Your task to perform on an android device: Open Youtube and go to the subscriptions tab Image 0: 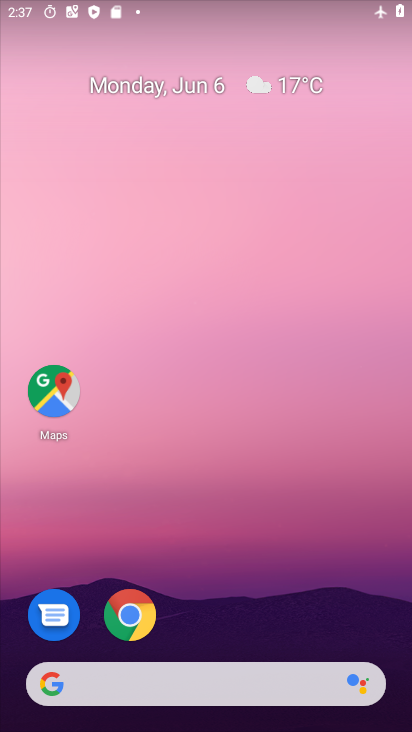
Step 0: click (222, 179)
Your task to perform on an android device: Open Youtube and go to the subscriptions tab Image 1: 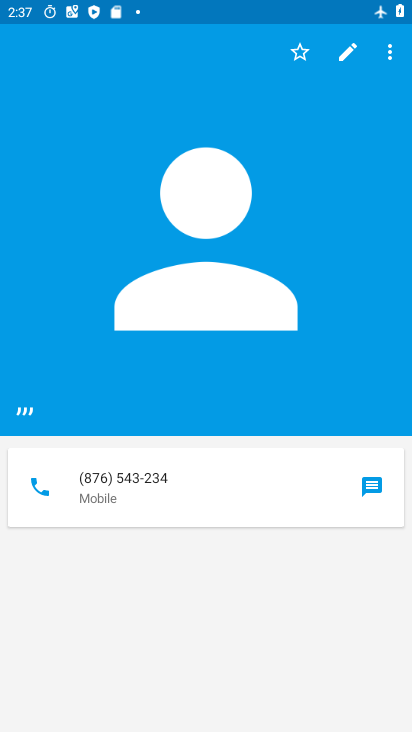
Step 1: press home button
Your task to perform on an android device: Open Youtube and go to the subscriptions tab Image 2: 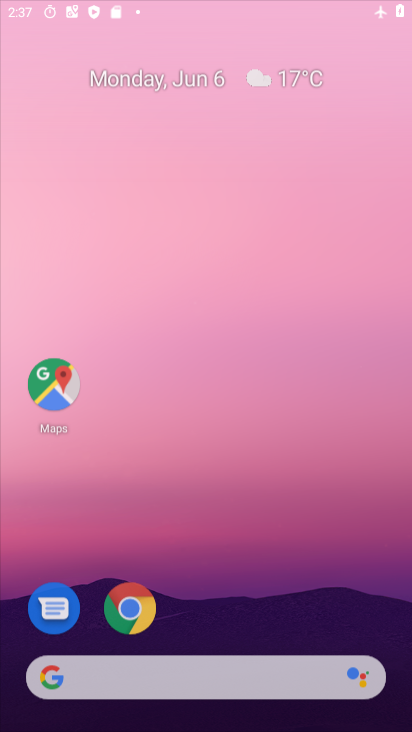
Step 2: drag from (180, 613) to (230, 126)
Your task to perform on an android device: Open Youtube and go to the subscriptions tab Image 3: 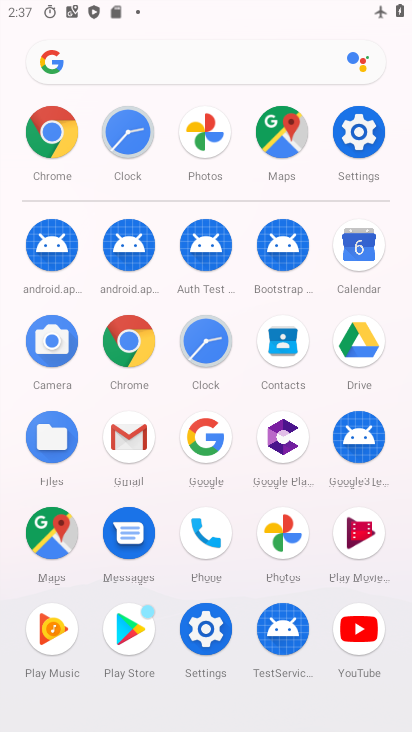
Step 3: click (356, 618)
Your task to perform on an android device: Open Youtube and go to the subscriptions tab Image 4: 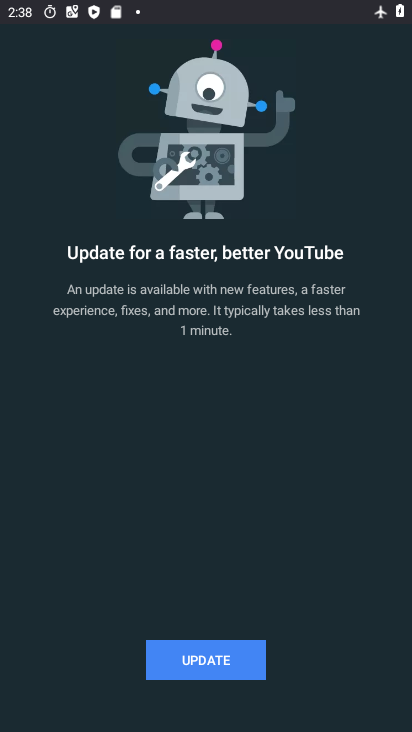
Step 4: click (227, 664)
Your task to perform on an android device: Open Youtube and go to the subscriptions tab Image 5: 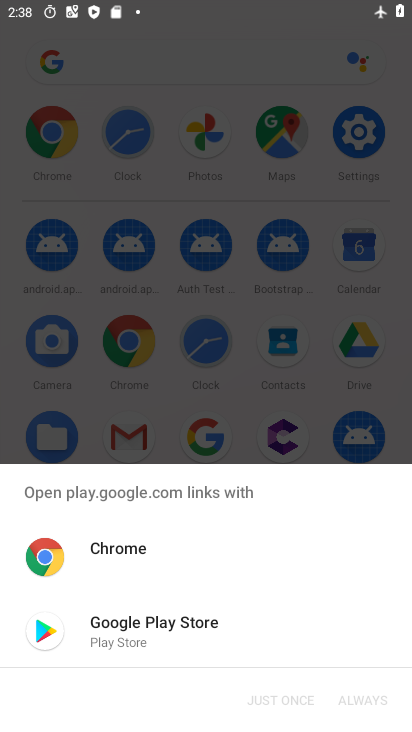
Step 5: click (116, 626)
Your task to perform on an android device: Open Youtube and go to the subscriptions tab Image 6: 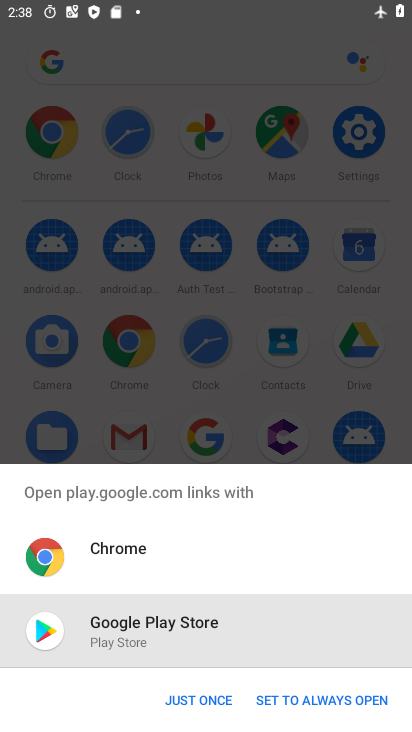
Step 6: click (141, 628)
Your task to perform on an android device: Open Youtube and go to the subscriptions tab Image 7: 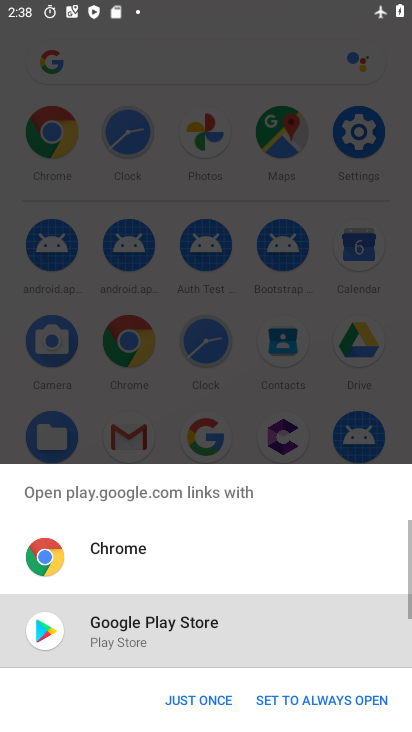
Step 7: click (199, 694)
Your task to perform on an android device: Open Youtube and go to the subscriptions tab Image 8: 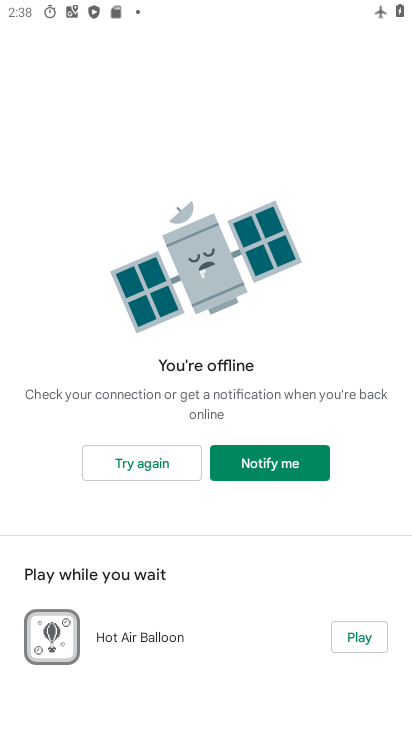
Step 8: drag from (200, 674) to (246, 225)
Your task to perform on an android device: Open Youtube and go to the subscriptions tab Image 9: 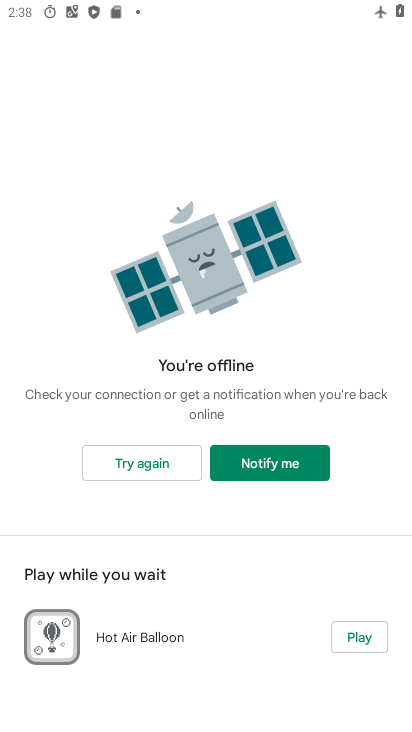
Step 9: click (136, 456)
Your task to perform on an android device: Open Youtube and go to the subscriptions tab Image 10: 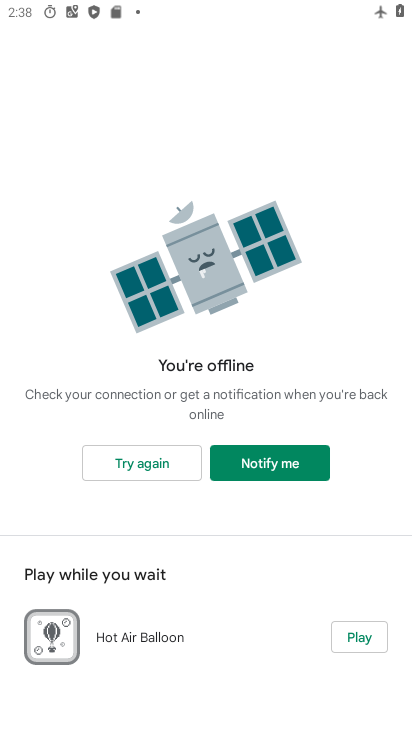
Step 10: task complete